Your task to perform on an android device: Open Google Chrome Image 0: 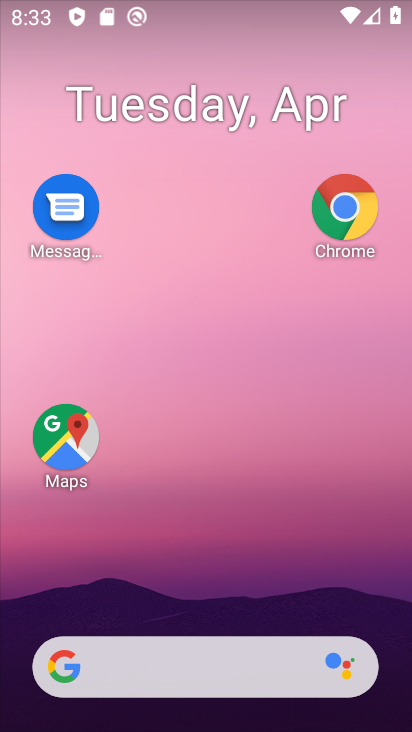
Step 0: drag from (228, 630) to (198, 27)
Your task to perform on an android device: Open Google Chrome Image 1: 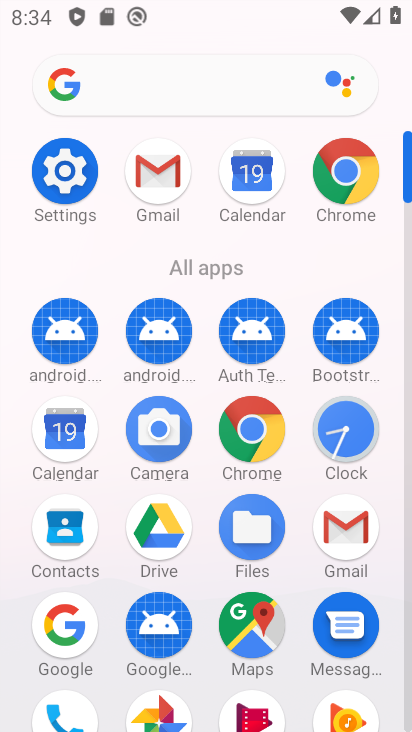
Step 1: click (340, 187)
Your task to perform on an android device: Open Google Chrome Image 2: 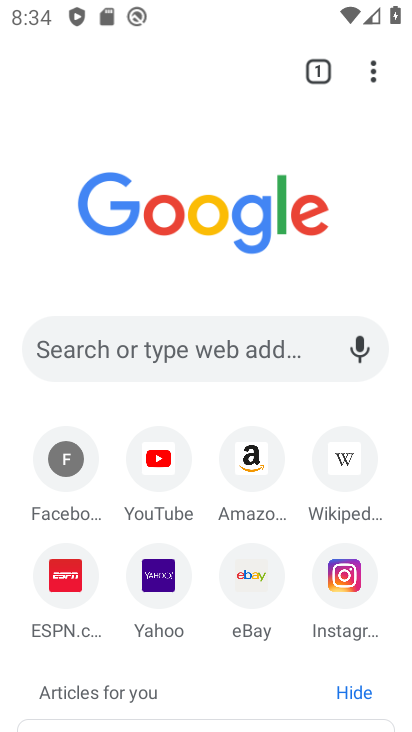
Step 2: task complete